Your task to perform on an android device: turn on data saver in the chrome app Image 0: 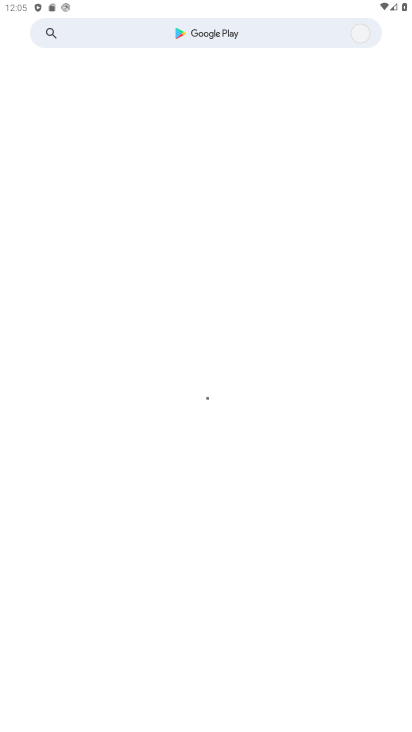
Step 0: press home button
Your task to perform on an android device: turn on data saver in the chrome app Image 1: 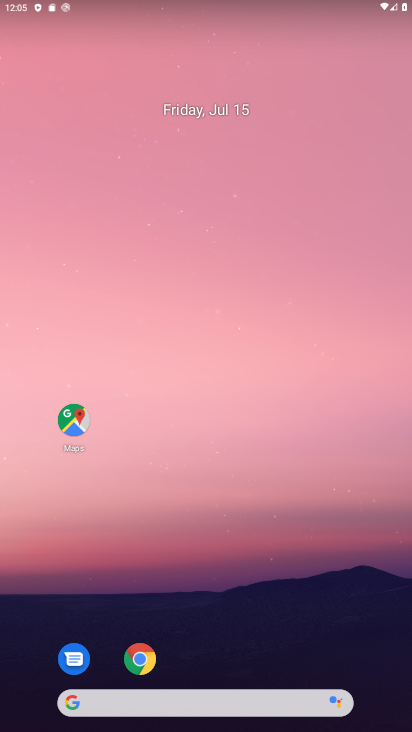
Step 1: click (154, 658)
Your task to perform on an android device: turn on data saver in the chrome app Image 2: 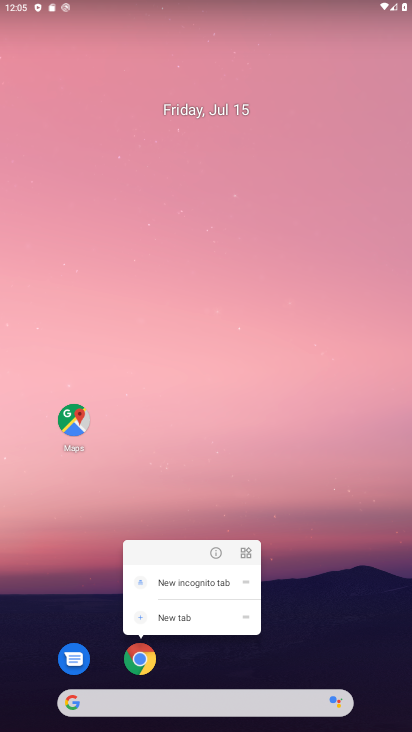
Step 2: click (147, 650)
Your task to perform on an android device: turn on data saver in the chrome app Image 3: 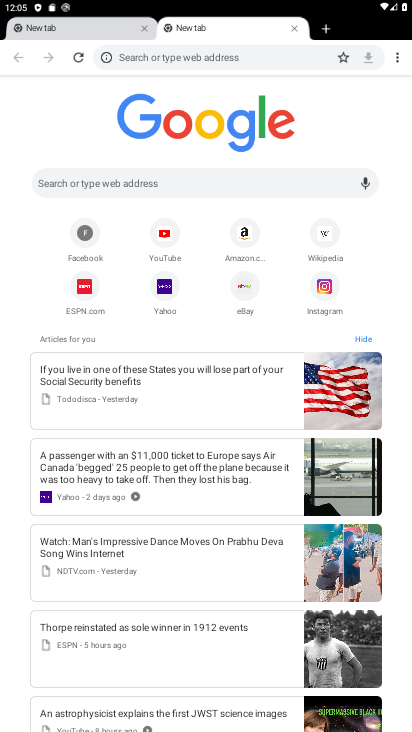
Step 3: click (393, 63)
Your task to perform on an android device: turn on data saver in the chrome app Image 4: 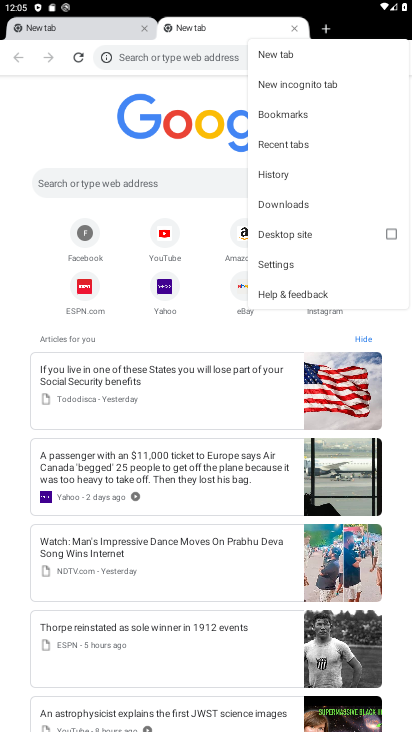
Step 4: click (285, 260)
Your task to perform on an android device: turn on data saver in the chrome app Image 5: 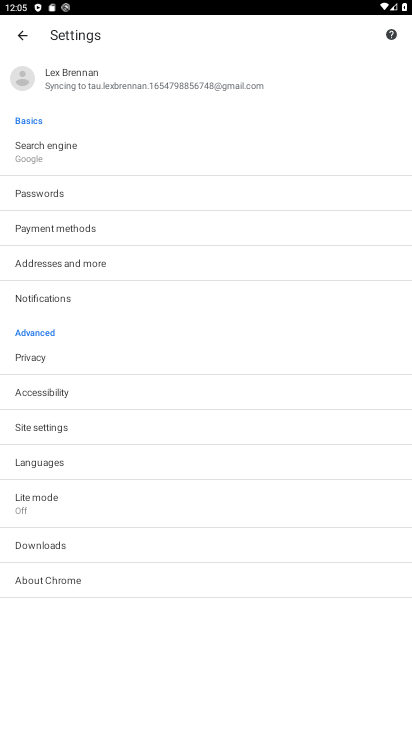
Step 5: click (55, 512)
Your task to perform on an android device: turn on data saver in the chrome app Image 6: 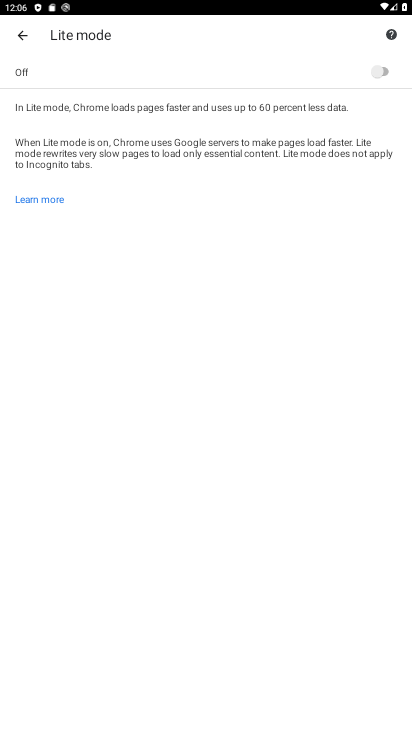
Step 6: click (379, 75)
Your task to perform on an android device: turn on data saver in the chrome app Image 7: 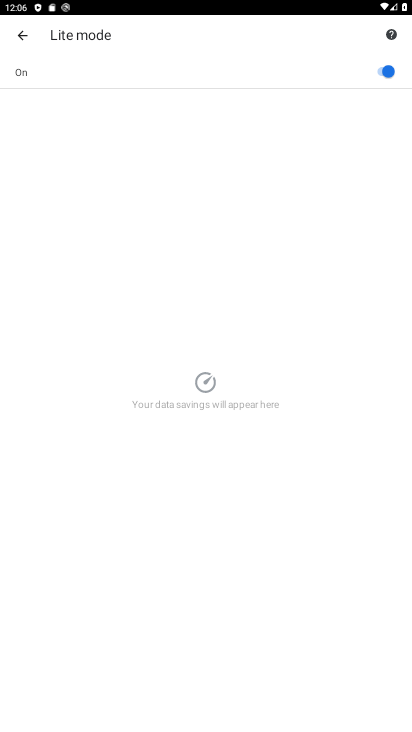
Step 7: task complete